Your task to perform on an android device: toggle priority inbox in the gmail app Image 0: 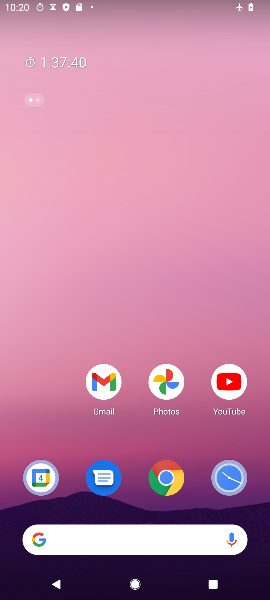
Step 0: drag from (136, 440) to (163, 30)
Your task to perform on an android device: toggle priority inbox in the gmail app Image 1: 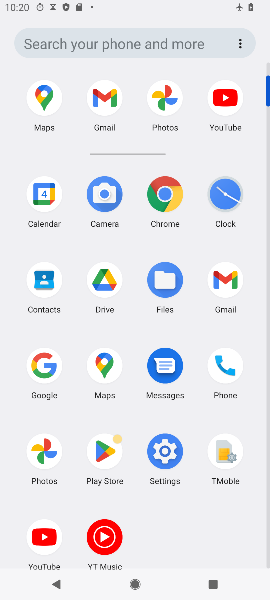
Step 1: click (221, 277)
Your task to perform on an android device: toggle priority inbox in the gmail app Image 2: 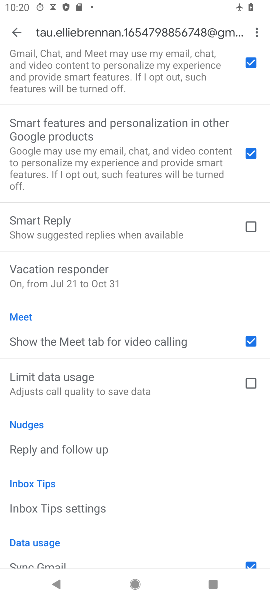
Step 2: drag from (106, 138) to (76, 599)
Your task to perform on an android device: toggle priority inbox in the gmail app Image 3: 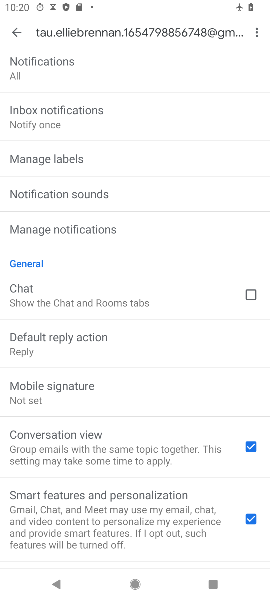
Step 3: drag from (131, 106) to (74, 484)
Your task to perform on an android device: toggle priority inbox in the gmail app Image 4: 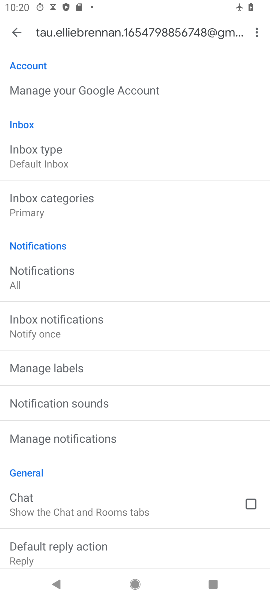
Step 4: click (34, 155)
Your task to perform on an android device: toggle priority inbox in the gmail app Image 5: 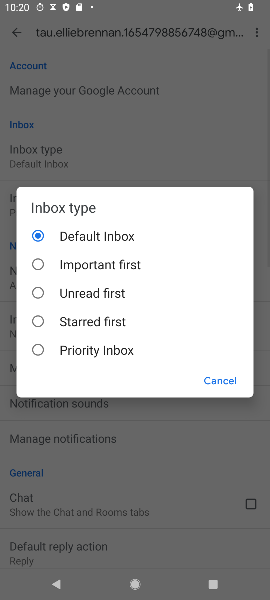
Step 5: click (48, 342)
Your task to perform on an android device: toggle priority inbox in the gmail app Image 6: 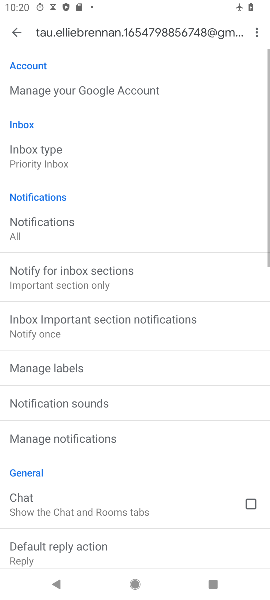
Step 6: task complete